Your task to perform on an android device: Go to calendar. Show me events next week Image 0: 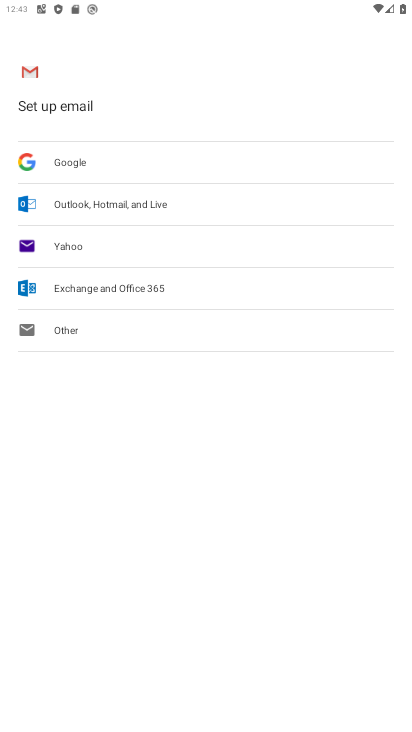
Step 0: press home button
Your task to perform on an android device: Go to calendar. Show me events next week Image 1: 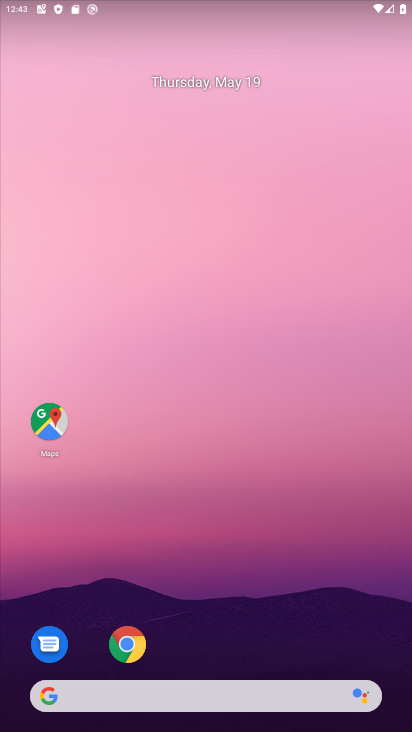
Step 1: drag from (292, 641) to (343, 204)
Your task to perform on an android device: Go to calendar. Show me events next week Image 2: 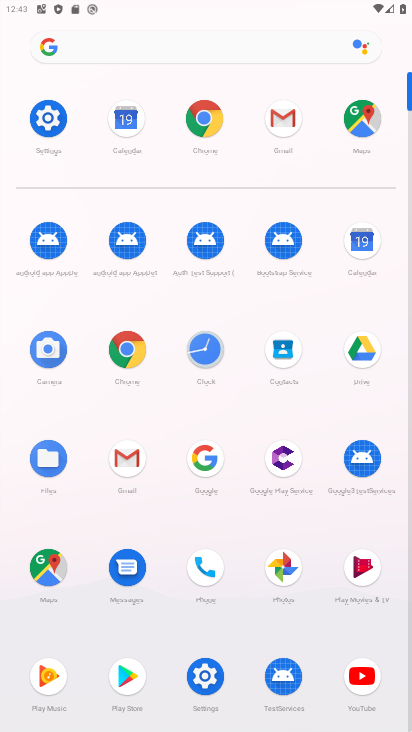
Step 2: click (362, 243)
Your task to perform on an android device: Go to calendar. Show me events next week Image 3: 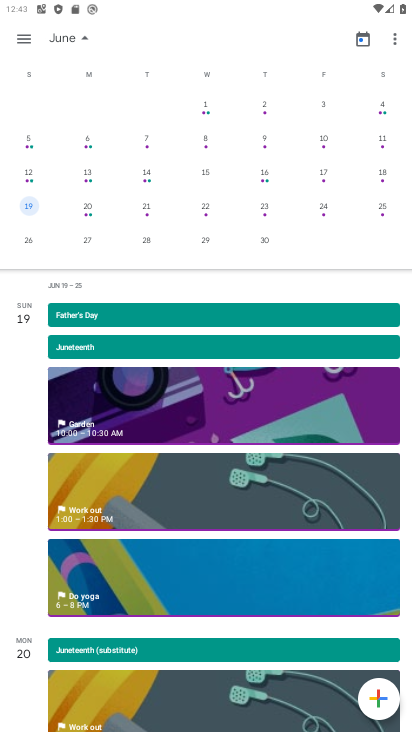
Step 3: drag from (111, 160) to (320, 164)
Your task to perform on an android device: Go to calendar. Show me events next week Image 4: 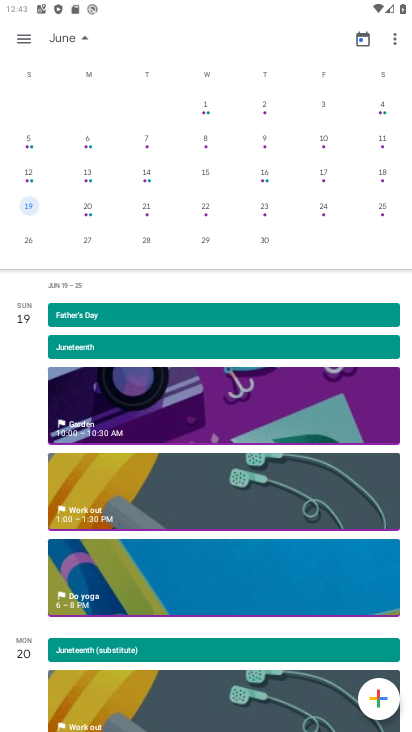
Step 4: drag from (106, 180) to (376, 170)
Your task to perform on an android device: Go to calendar. Show me events next week Image 5: 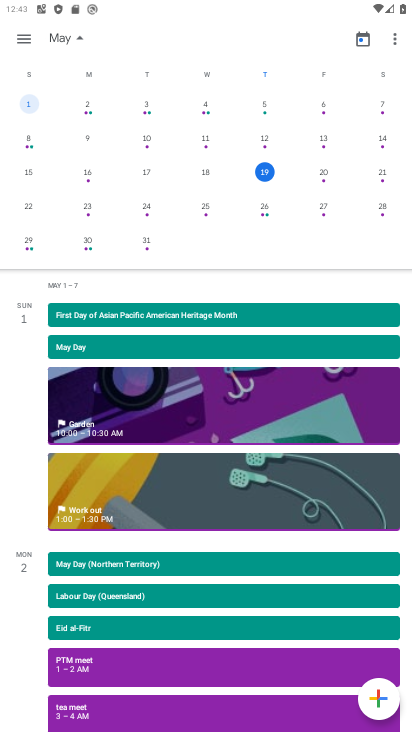
Step 5: click (34, 205)
Your task to perform on an android device: Go to calendar. Show me events next week Image 6: 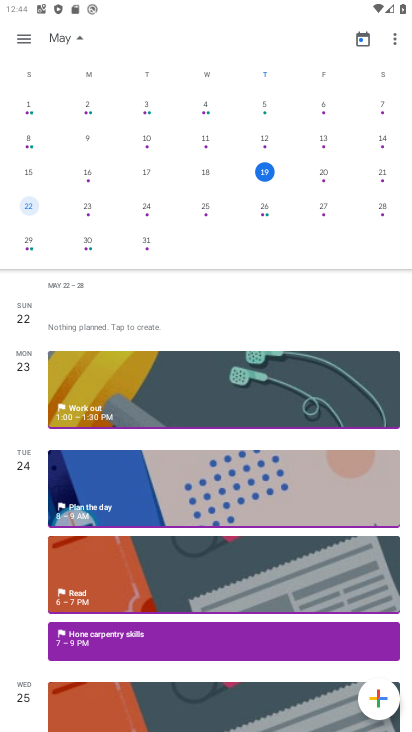
Step 6: task complete